Your task to perform on an android device: Add razer blade to the cart on bestbuy.com Image 0: 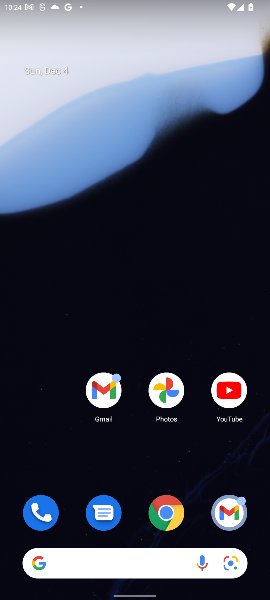
Step 0: click (168, 511)
Your task to perform on an android device: Add razer blade to the cart on bestbuy.com Image 1: 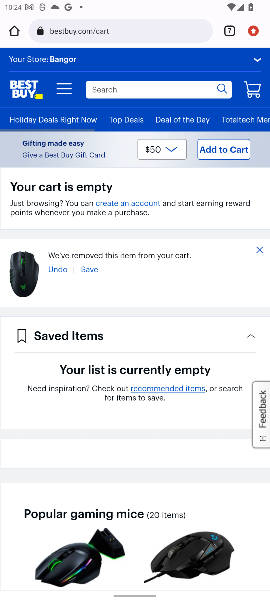
Step 1: click (153, 90)
Your task to perform on an android device: Add razer blade to the cart on bestbuy.com Image 2: 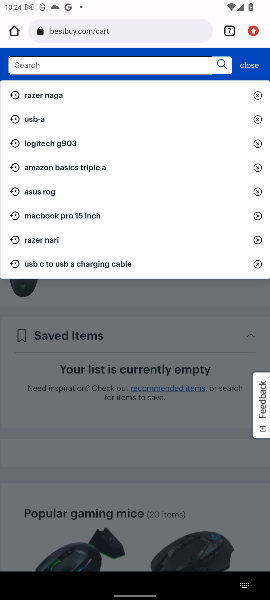
Step 2: type "razer blade "
Your task to perform on an android device: Add razer blade to the cart on bestbuy.com Image 3: 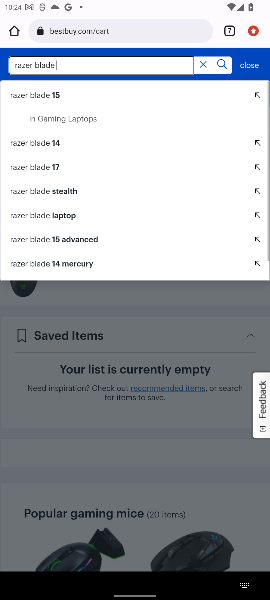
Step 3: click (33, 92)
Your task to perform on an android device: Add razer blade to the cart on bestbuy.com Image 4: 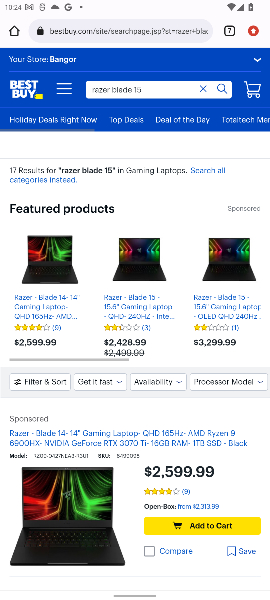
Step 4: click (171, 527)
Your task to perform on an android device: Add razer blade to the cart on bestbuy.com Image 5: 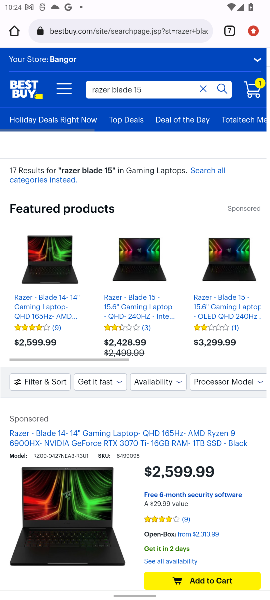
Step 5: task complete